Your task to perform on an android device: Search for the new nike air max 270 on Nike.com Image 0: 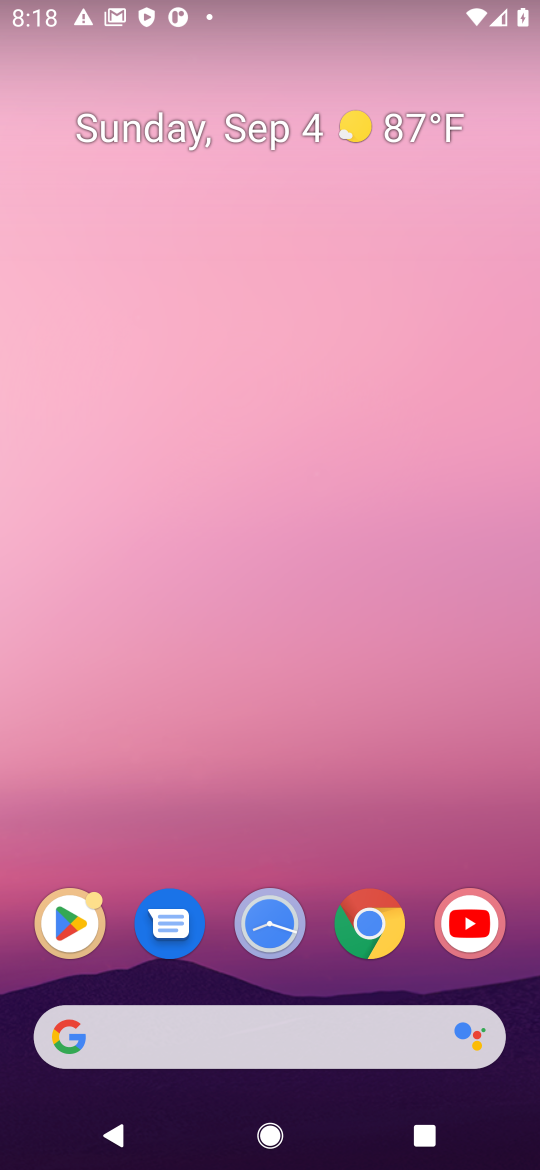
Step 0: press home button
Your task to perform on an android device: Search for the new nike air max 270 on Nike.com Image 1: 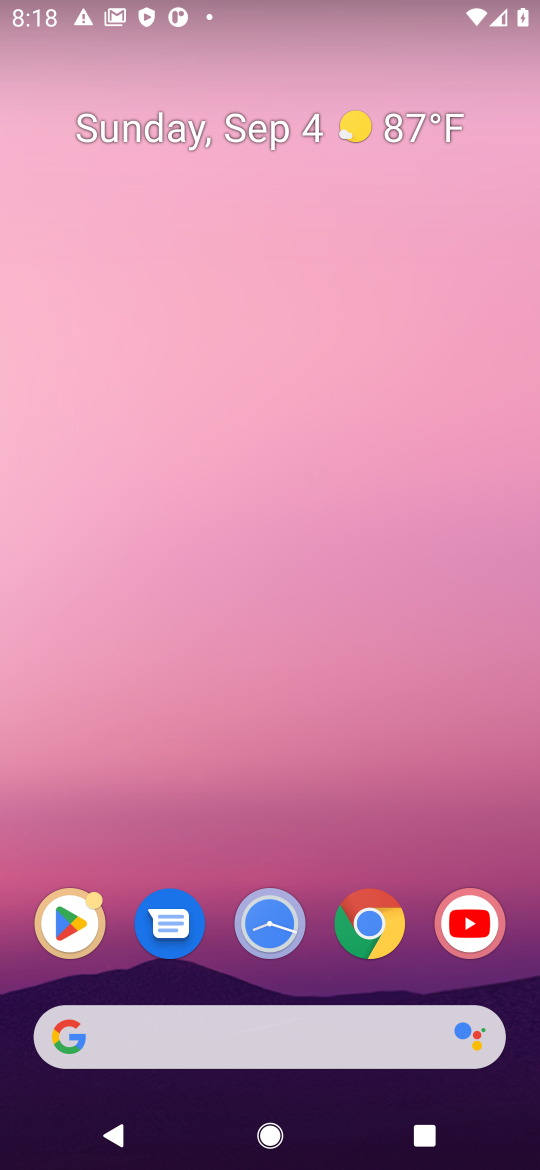
Step 1: click (371, 1037)
Your task to perform on an android device: Search for the new nike air max 270 on Nike.com Image 2: 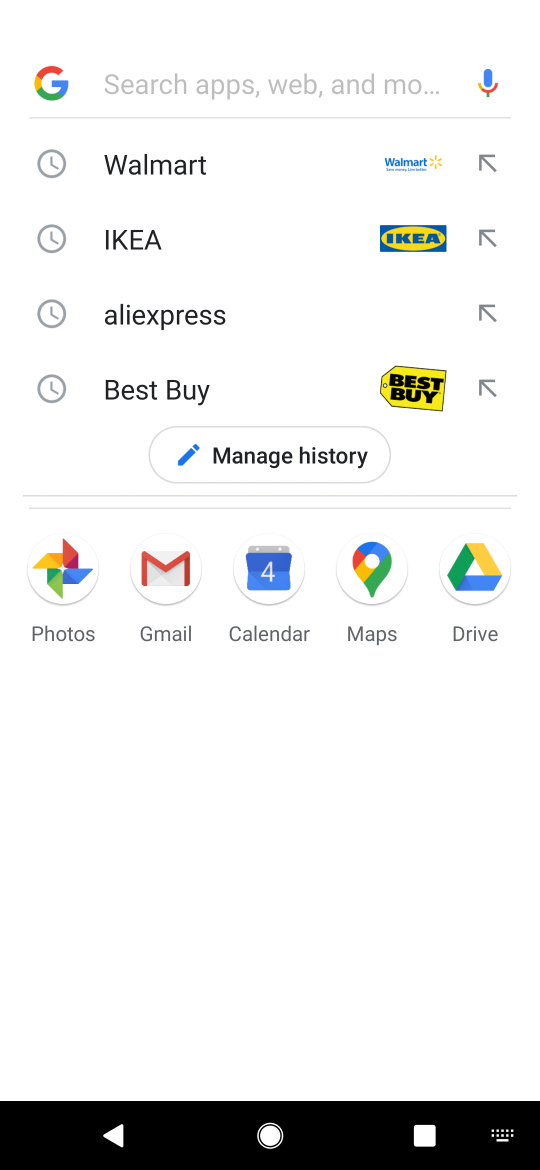
Step 2: press enter
Your task to perform on an android device: Search for the new nike air max 270 on Nike.com Image 3: 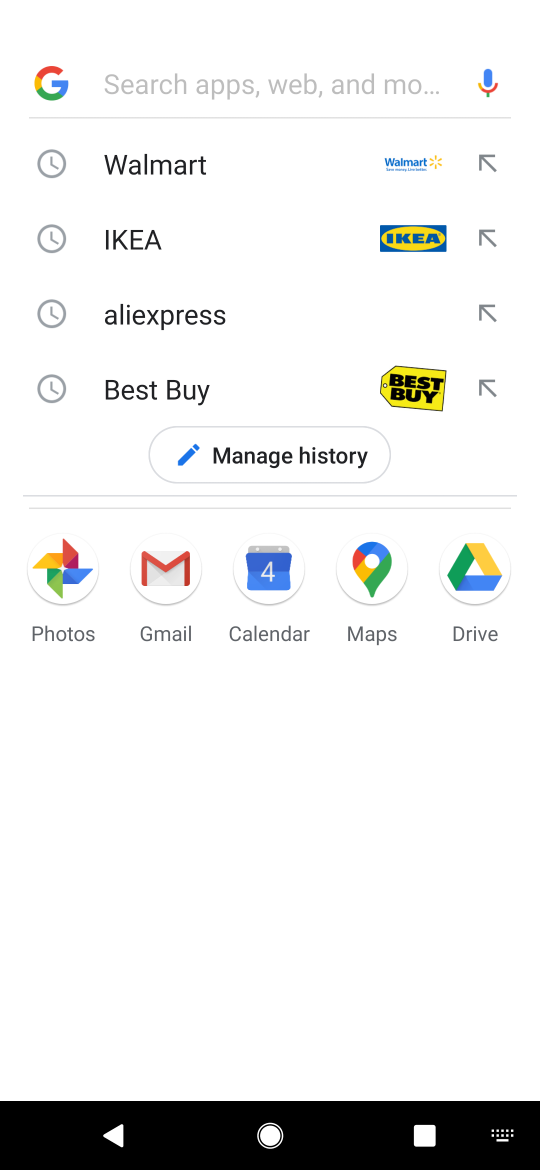
Step 3: type "nike.com"
Your task to perform on an android device: Search for the new nike air max 270 on Nike.com Image 4: 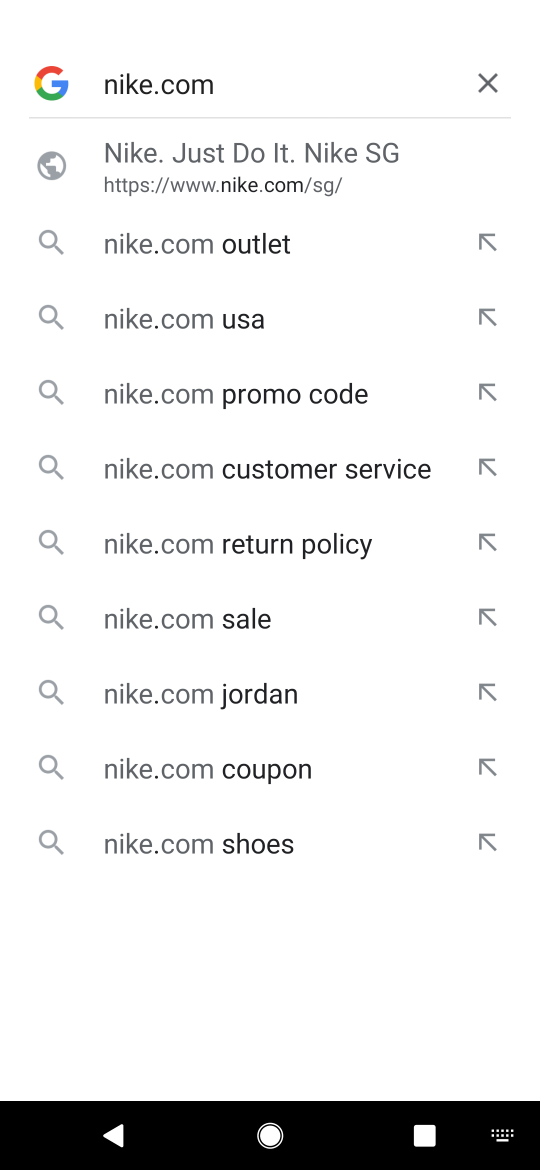
Step 4: click (275, 167)
Your task to perform on an android device: Search for the new nike air max 270 on Nike.com Image 5: 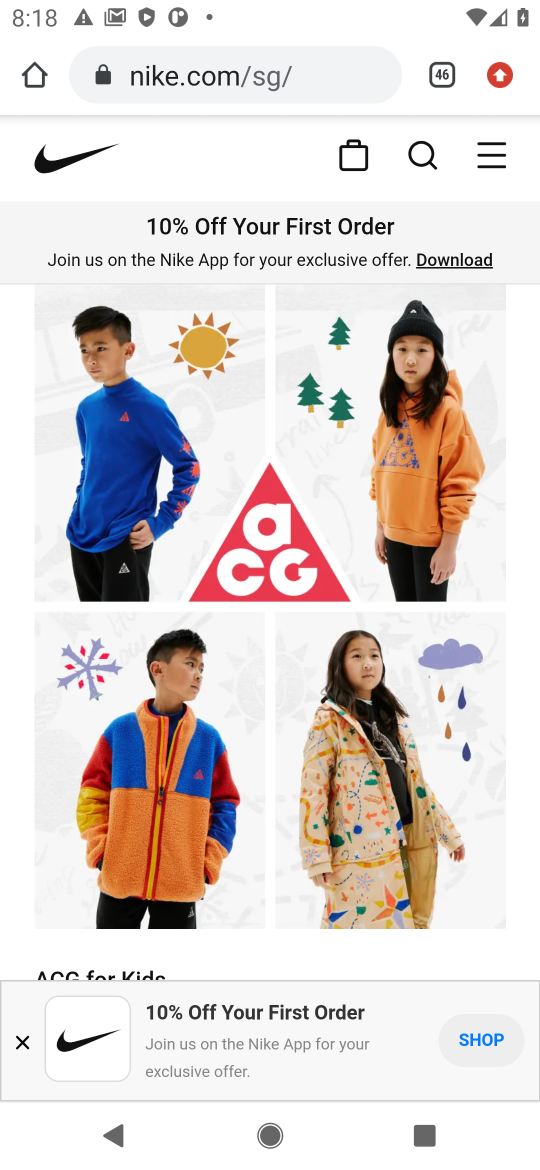
Step 5: click (412, 154)
Your task to perform on an android device: Search for the new nike air max 270 on Nike.com Image 6: 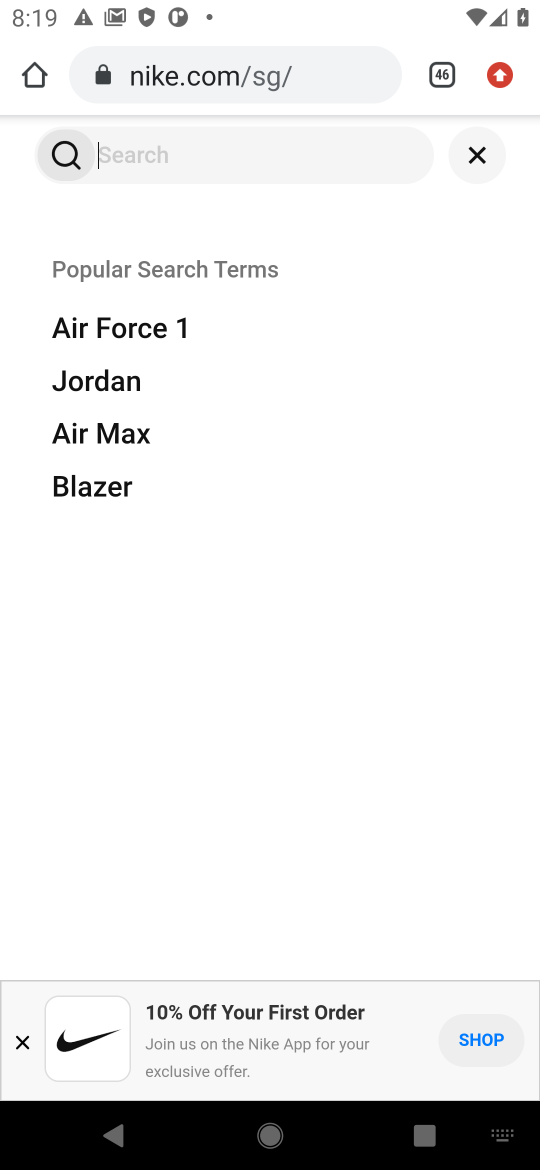
Step 6: press enter
Your task to perform on an android device: Search for the new nike air max 270 on Nike.com Image 7: 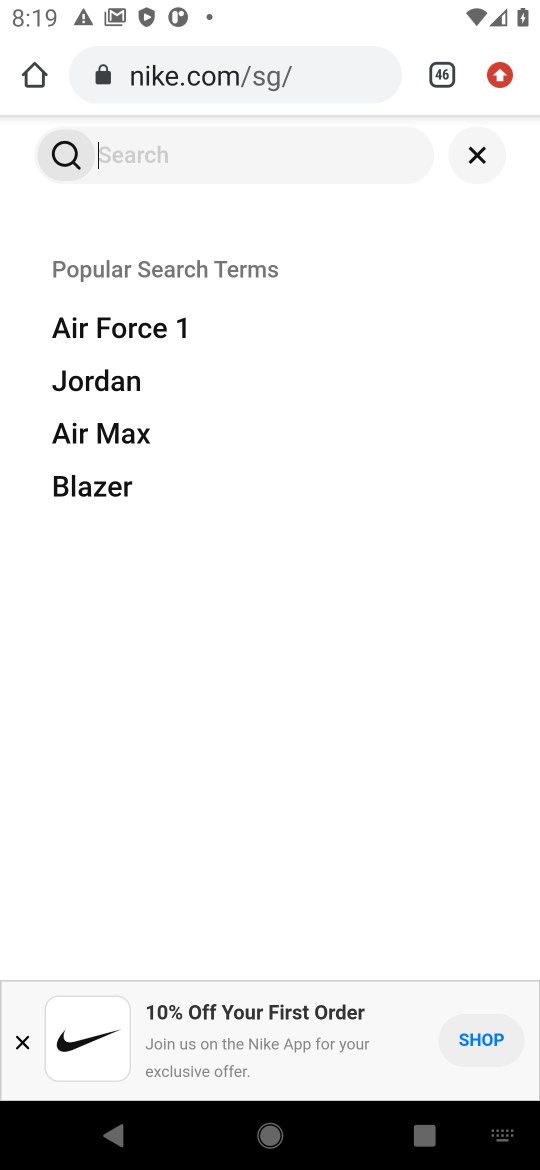
Step 7: type "nike air max 270"
Your task to perform on an android device: Search for the new nike air max 270 on Nike.com Image 8: 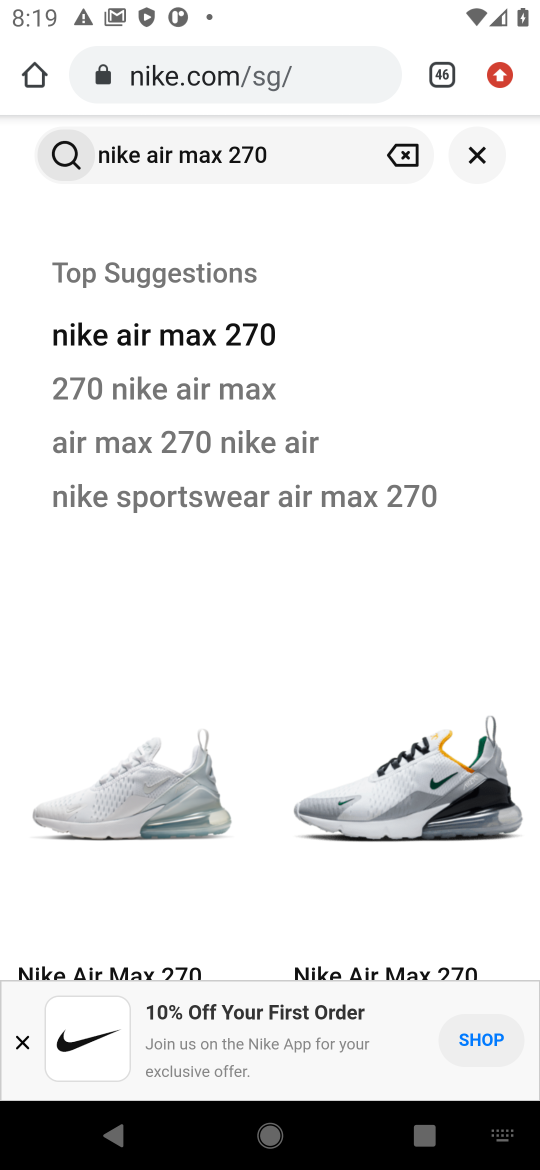
Step 8: task complete